Your task to perform on an android device: Open Google Chrome and open the bookmarks view Image 0: 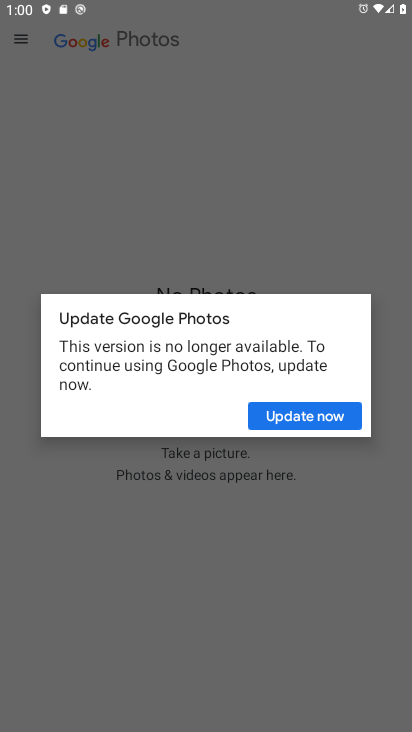
Step 0: press home button
Your task to perform on an android device: Open Google Chrome and open the bookmarks view Image 1: 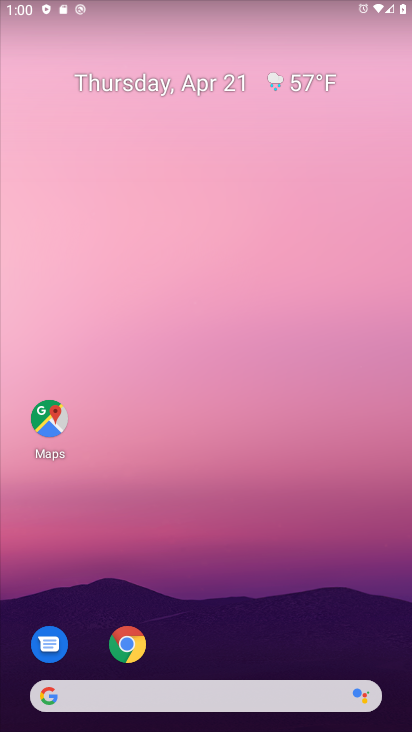
Step 1: click (133, 638)
Your task to perform on an android device: Open Google Chrome and open the bookmarks view Image 2: 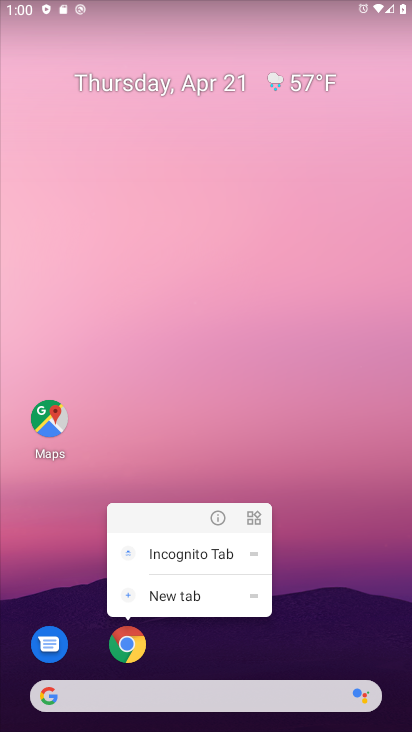
Step 2: click (133, 630)
Your task to perform on an android device: Open Google Chrome and open the bookmarks view Image 3: 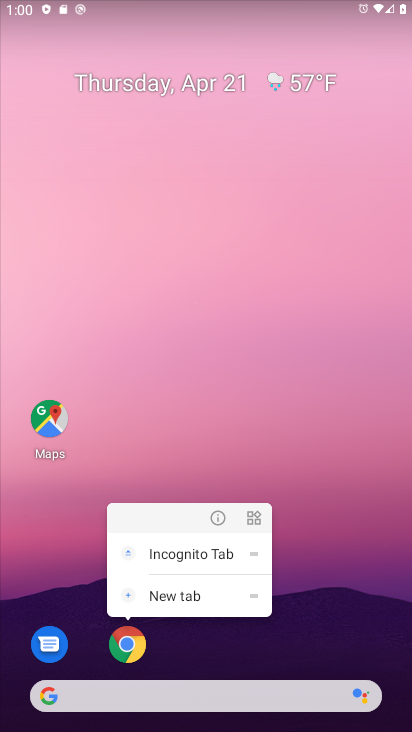
Step 3: click (129, 644)
Your task to perform on an android device: Open Google Chrome and open the bookmarks view Image 4: 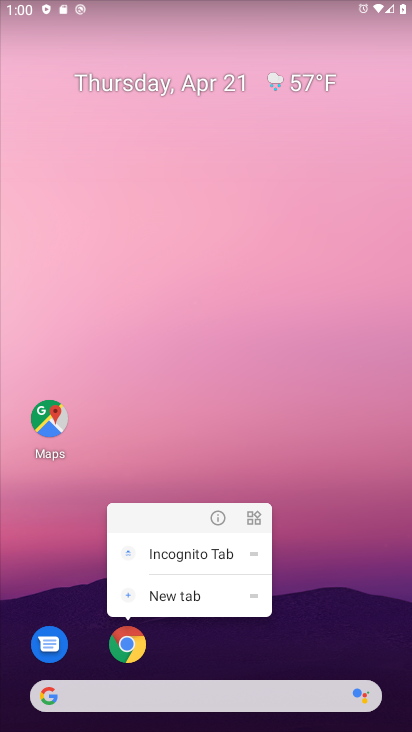
Step 4: click (129, 644)
Your task to perform on an android device: Open Google Chrome and open the bookmarks view Image 5: 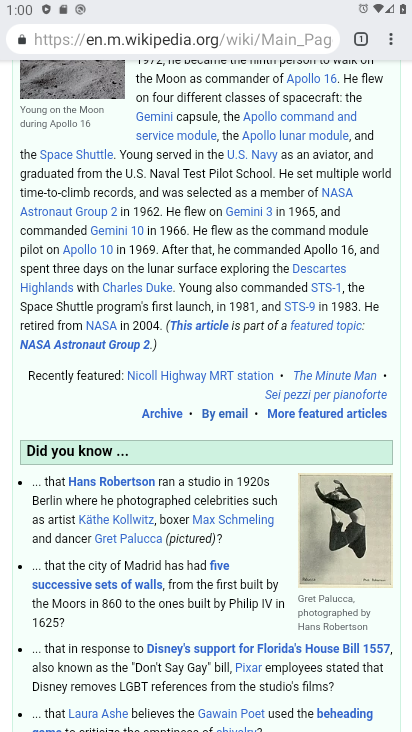
Step 5: task complete